Your task to perform on an android device: Open privacy settings Image 0: 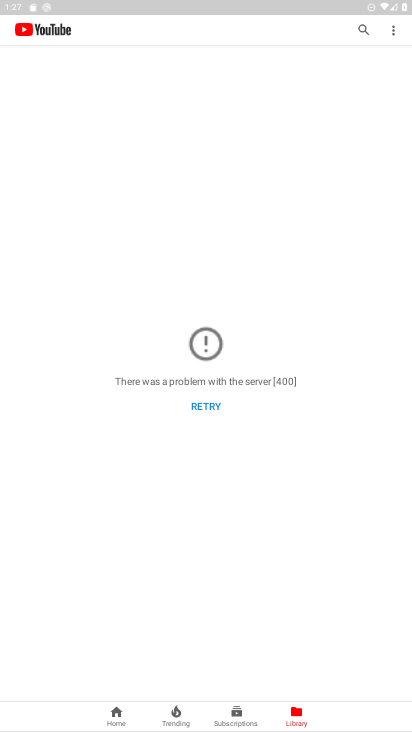
Step 0: press home button
Your task to perform on an android device: Open privacy settings Image 1: 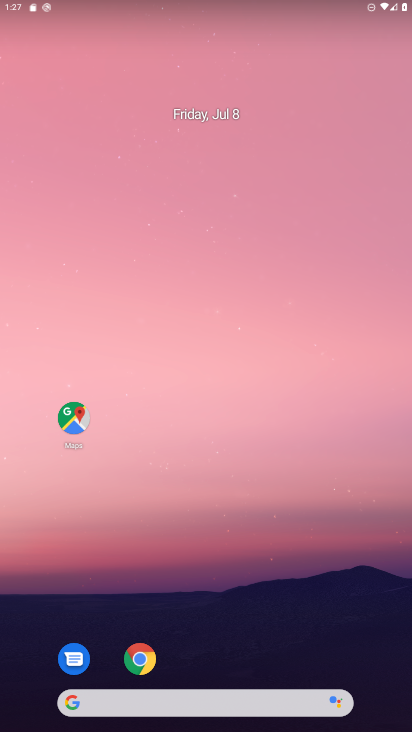
Step 1: drag from (208, 701) to (270, 61)
Your task to perform on an android device: Open privacy settings Image 2: 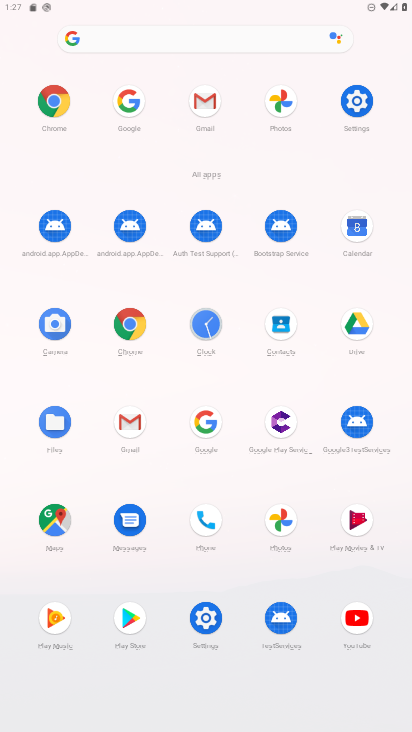
Step 2: click (355, 100)
Your task to perform on an android device: Open privacy settings Image 3: 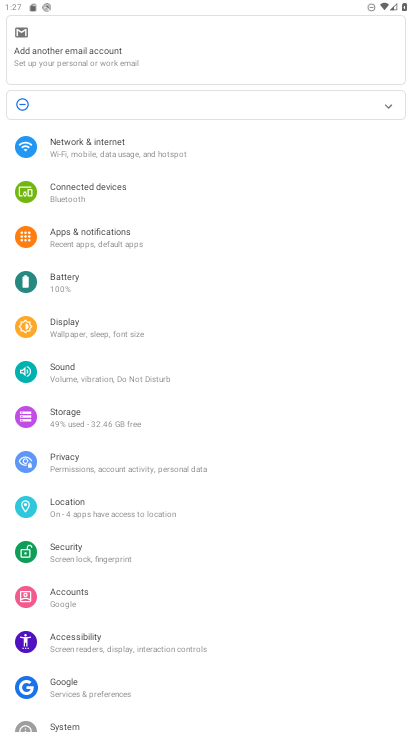
Step 3: click (101, 465)
Your task to perform on an android device: Open privacy settings Image 4: 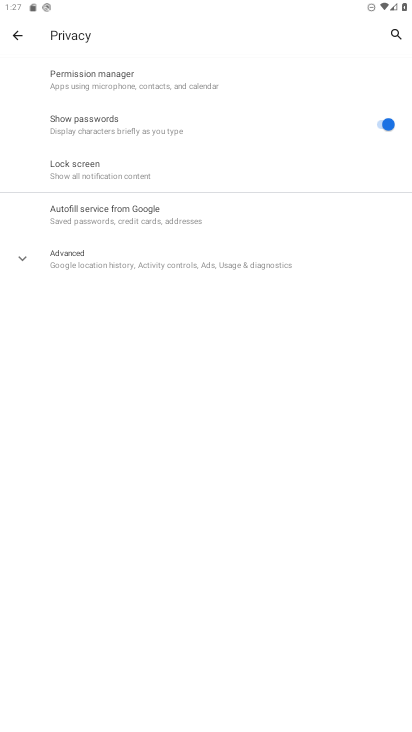
Step 4: task complete